Your task to perform on an android device: turn on data saver in the chrome app Image 0: 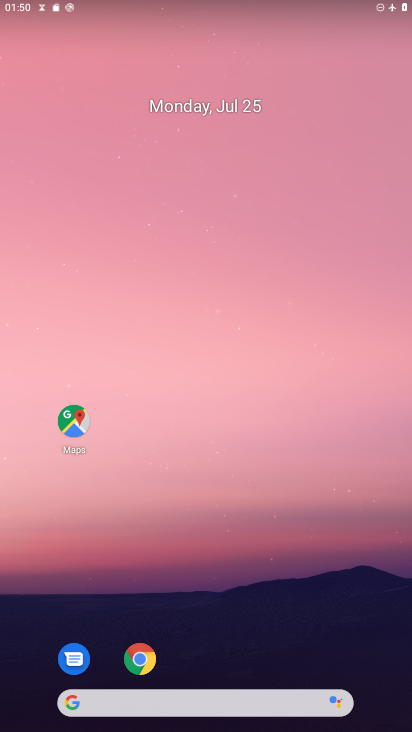
Step 0: drag from (214, 644) to (225, 53)
Your task to perform on an android device: turn on data saver in the chrome app Image 1: 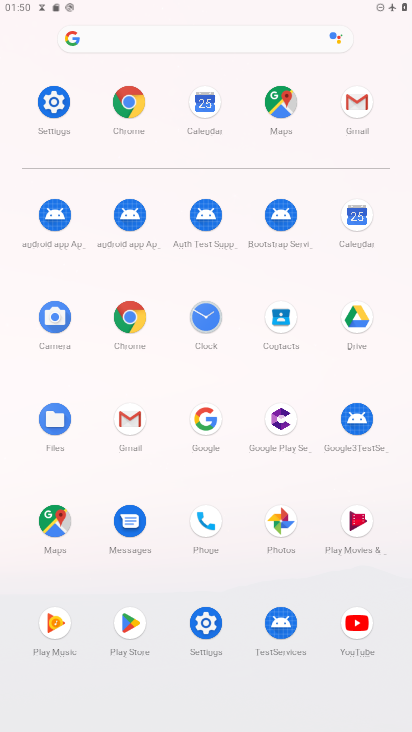
Step 1: click (130, 99)
Your task to perform on an android device: turn on data saver in the chrome app Image 2: 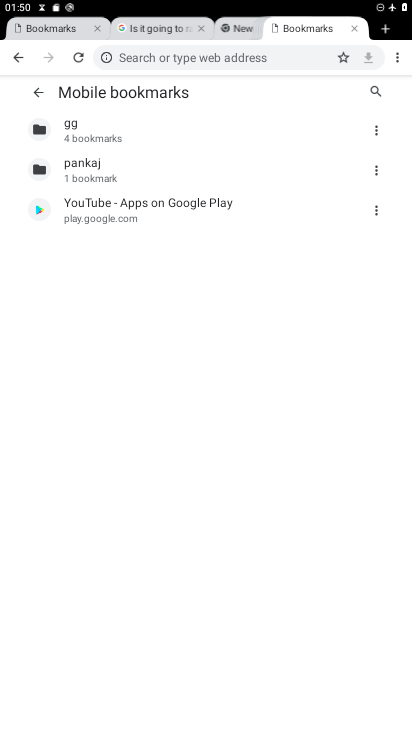
Step 2: click (401, 47)
Your task to perform on an android device: turn on data saver in the chrome app Image 3: 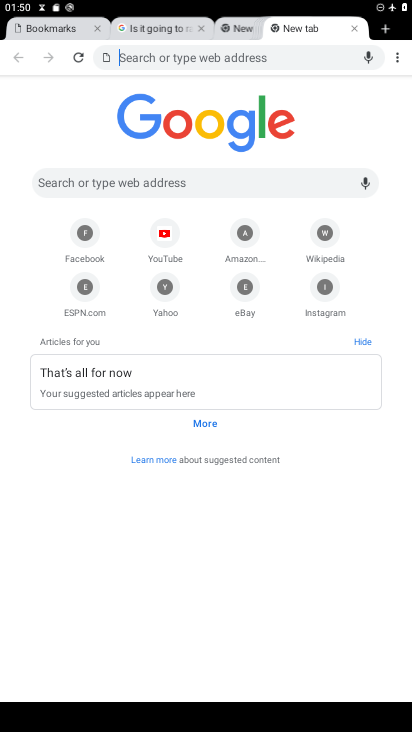
Step 3: click (403, 60)
Your task to perform on an android device: turn on data saver in the chrome app Image 4: 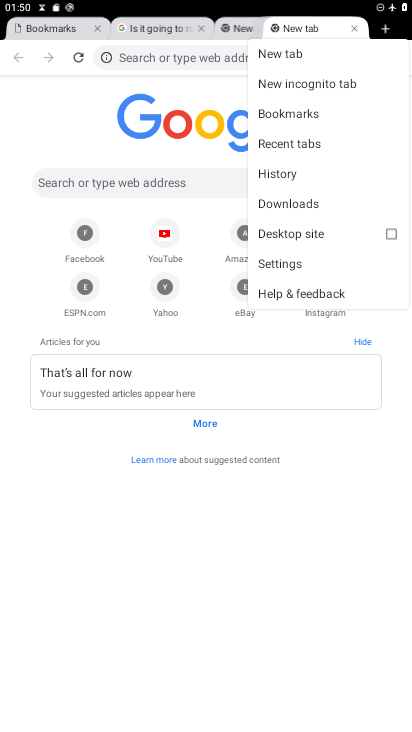
Step 4: click (288, 260)
Your task to perform on an android device: turn on data saver in the chrome app Image 5: 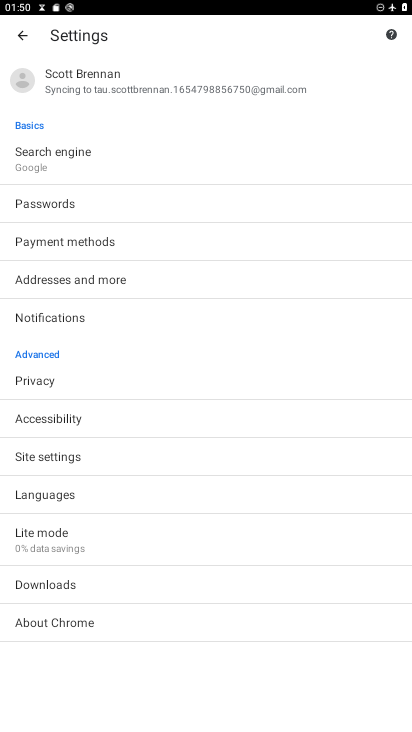
Step 5: click (98, 520)
Your task to perform on an android device: turn on data saver in the chrome app Image 6: 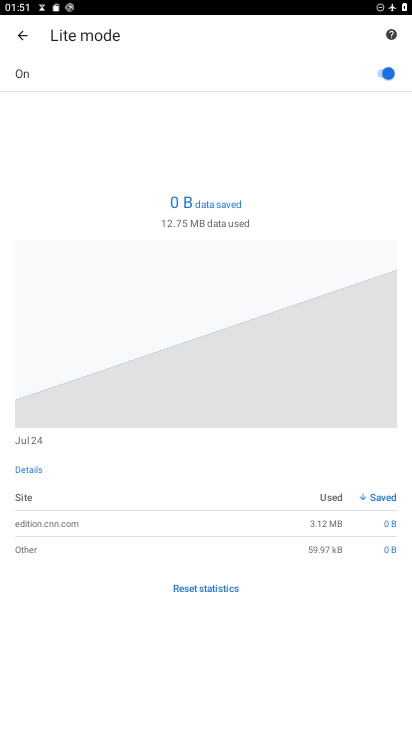
Step 6: task complete